Your task to perform on an android device: Show me the alarms in the clock app Image 0: 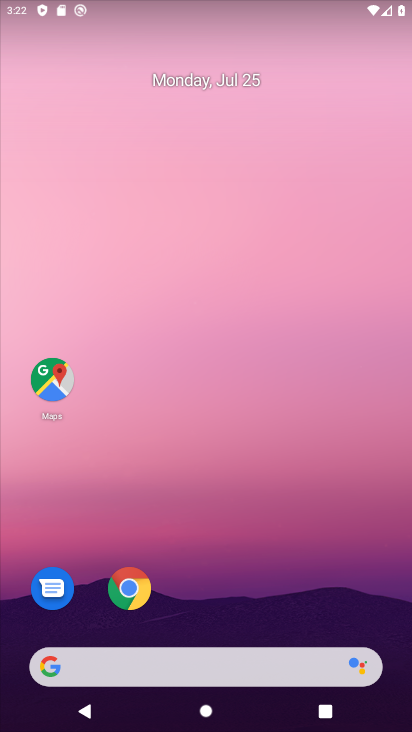
Step 0: drag from (223, 578) to (153, 5)
Your task to perform on an android device: Show me the alarms in the clock app Image 1: 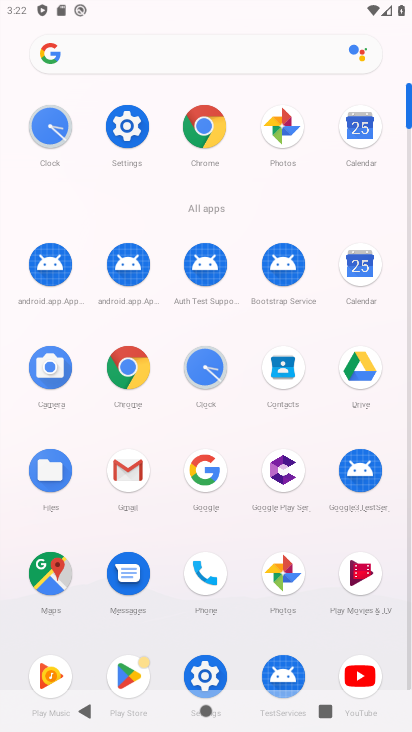
Step 1: click (199, 366)
Your task to perform on an android device: Show me the alarms in the clock app Image 2: 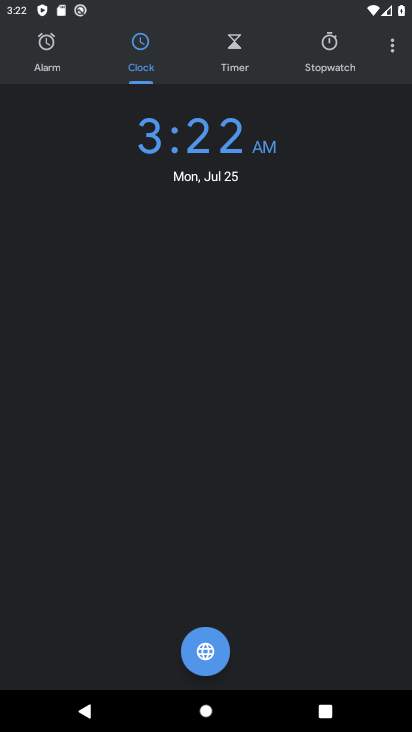
Step 2: click (57, 49)
Your task to perform on an android device: Show me the alarms in the clock app Image 3: 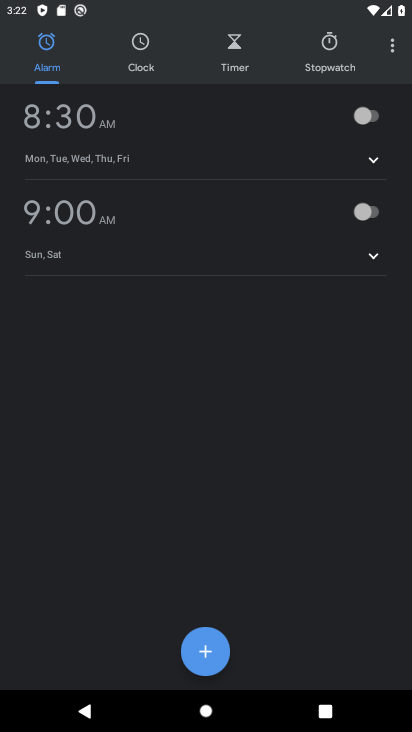
Step 3: task complete